Your task to perform on an android device: remove spam from my inbox in the gmail app Image 0: 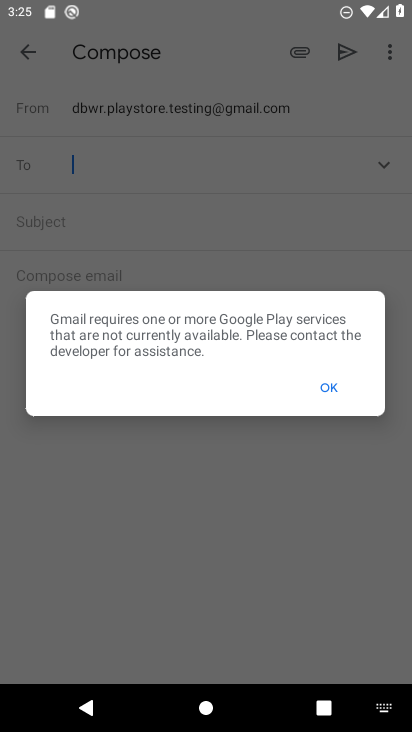
Step 0: press home button
Your task to perform on an android device: remove spam from my inbox in the gmail app Image 1: 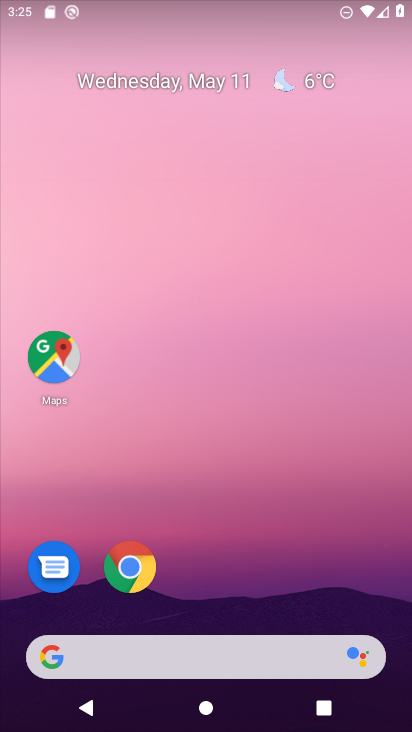
Step 1: drag from (312, 555) to (184, 55)
Your task to perform on an android device: remove spam from my inbox in the gmail app Image 2: 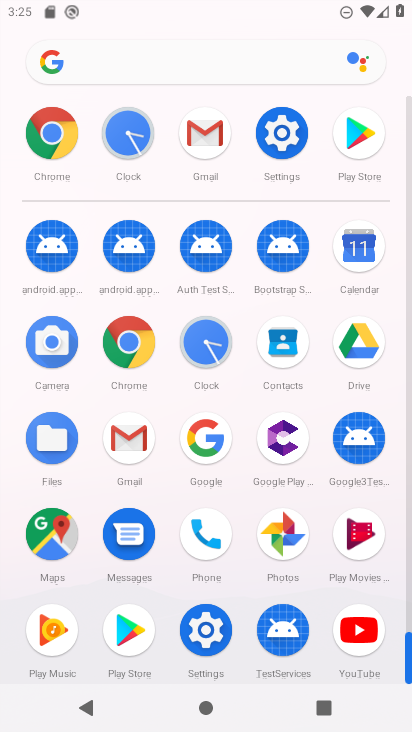
Step 2: click (122, 437)
Your task to perform on an android device: remove spam from my inbox in the gmail app Image 3: 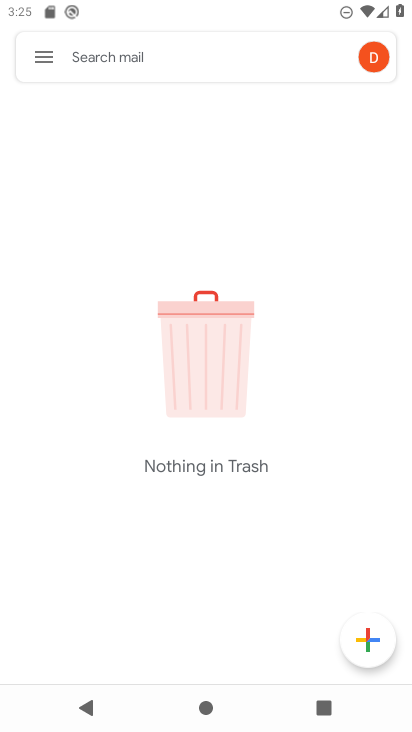
Step 3: click (36, 54)
Your task to perform on an android device: remove spam from my inbox in the gmail app Image 4: 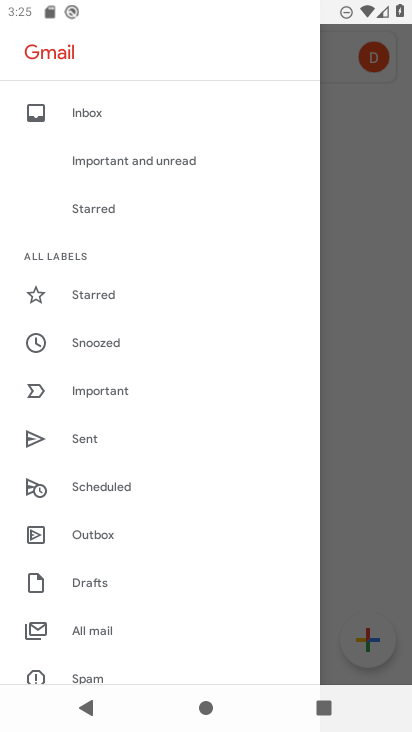
Step 4: click (85, 673)
Your task to perform on an android device: remove spam from my inbox in the gmail app Image 5: 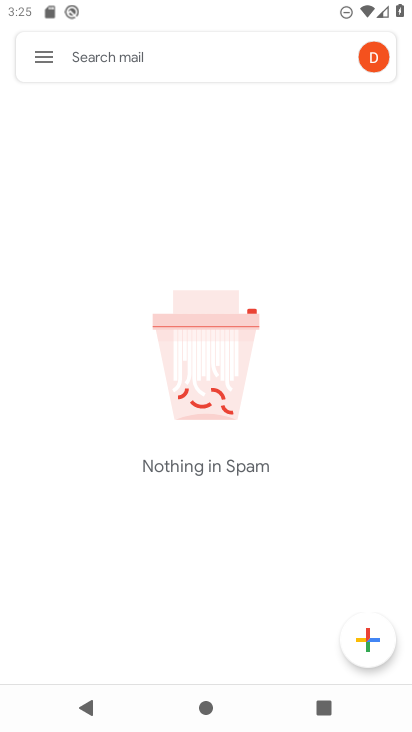
Step 5: task complete